Your task to perform on an android device: open a new tab in the chrome app Image 0: 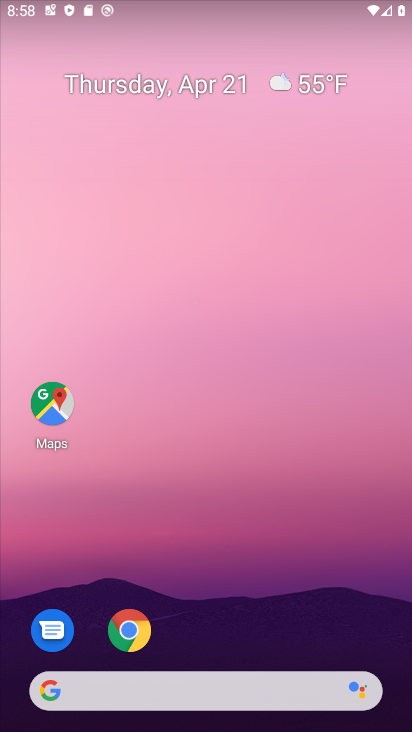
Step 0: click (136, 639)
Your task to perform on an android device: open a new tab in the chrome app Image 1: 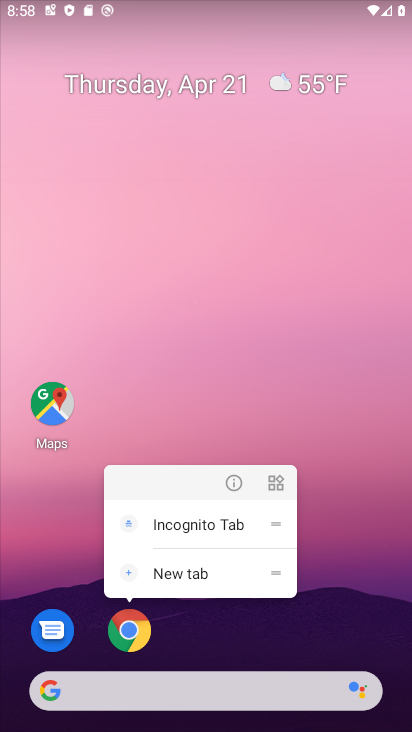
Step 1: click (127, 632)
Your task to perform on an android device: open a new tab in the chrome app Image 2: 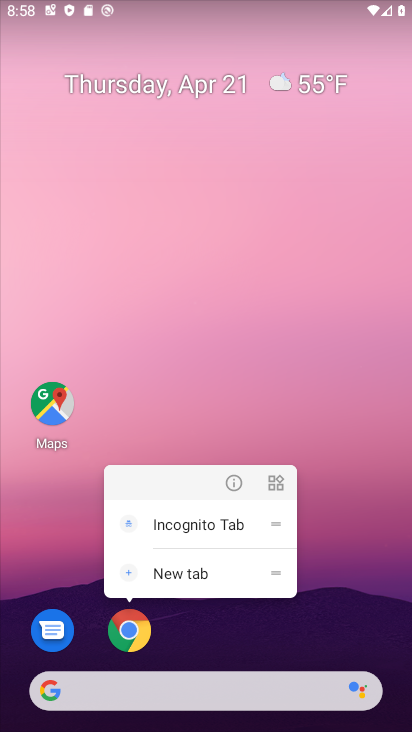
Step 2: click (145, 625)
Your task to perform on an android device: open a new tab in the chrome app Image 3: 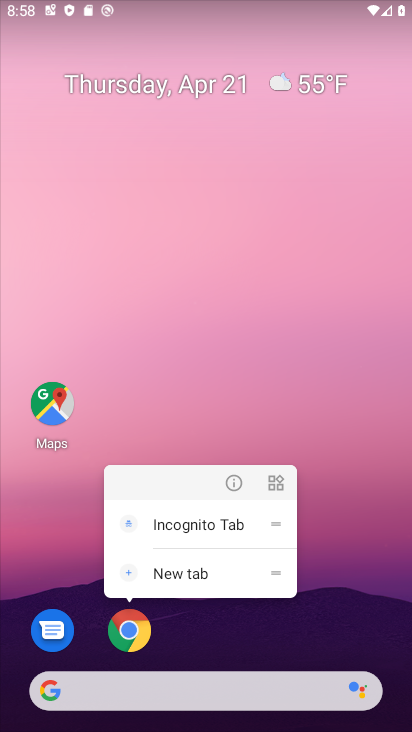
Step 3: click (146, 642)
Your task to perform on an android device: open a new tab in the chrome app Image 4: 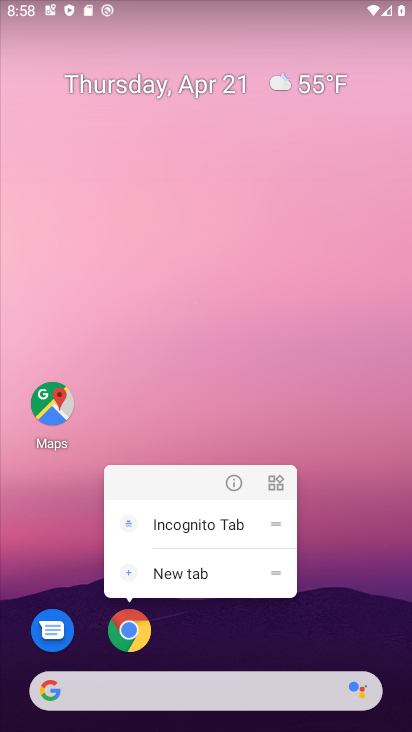
Step 4: click (142, 631)
Your task to perform on an android device: open a new tab in the chrome app Image 5: 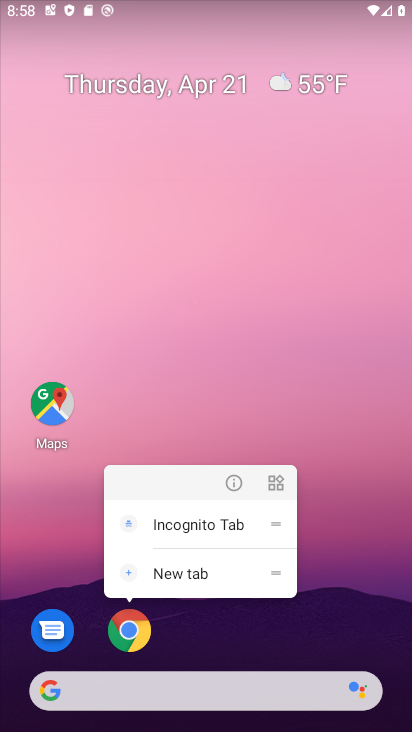
Step 5: click (134, 628)
Your task to perform on an android device: open a new tab in the chrome app Image 6: 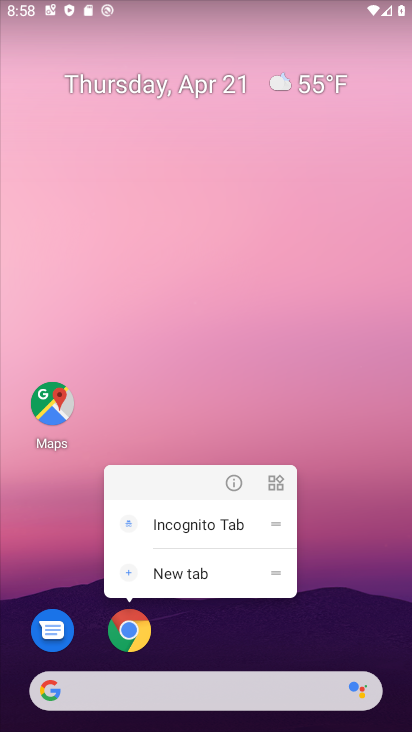
Step 6: click (112, 611)
Your task to perform on an android device: open a new tab in the chrome app Image 7: 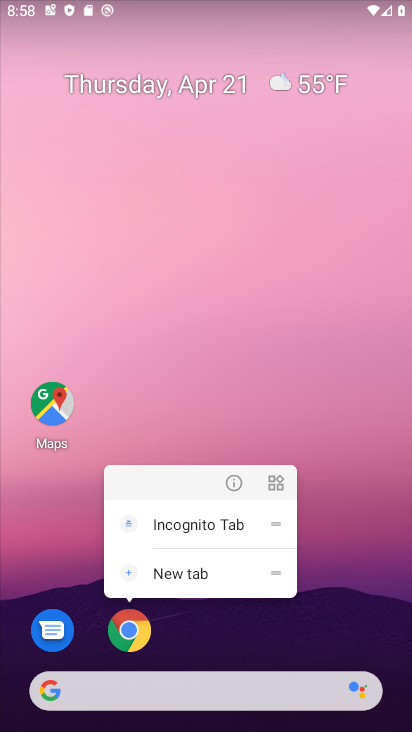
Step 7: click (136, 629)
Your task to perform on an android device: open a new tab in the chrome app Image 8: 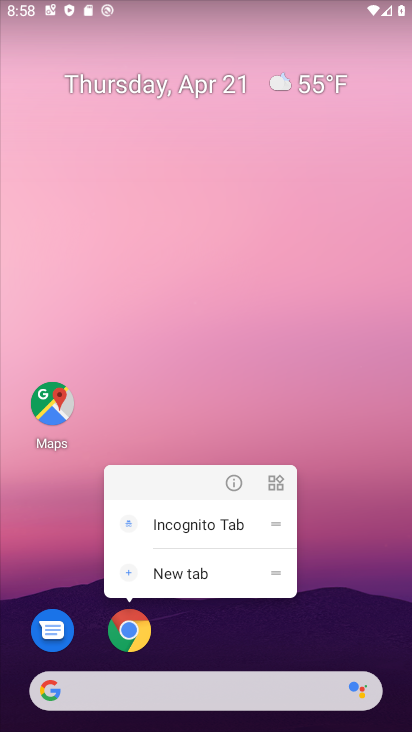
Step 8: click (154, 624)
Your task to perform on an android device: open a new tab in the chrome app Image 9: 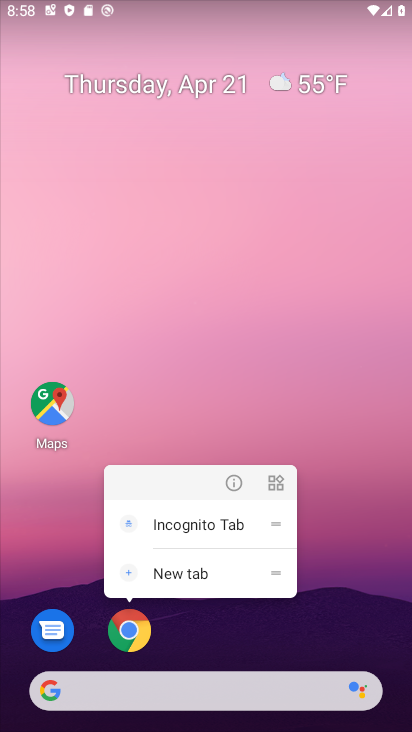
Step 9: drag from (287, 634) to (406, 65)
Your task to perform on an android device: open a new tab in the chrome app Image 10: 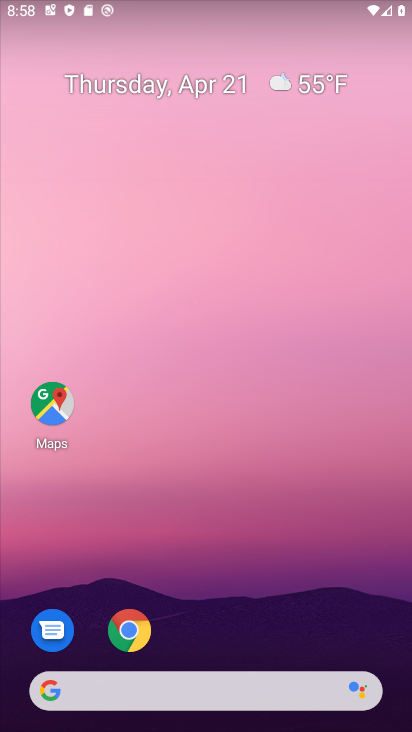
Step 10: drag from (234, 648) to (369, 27)
Your task to perform on an android device: open a new tab in the chrome app Image 11: 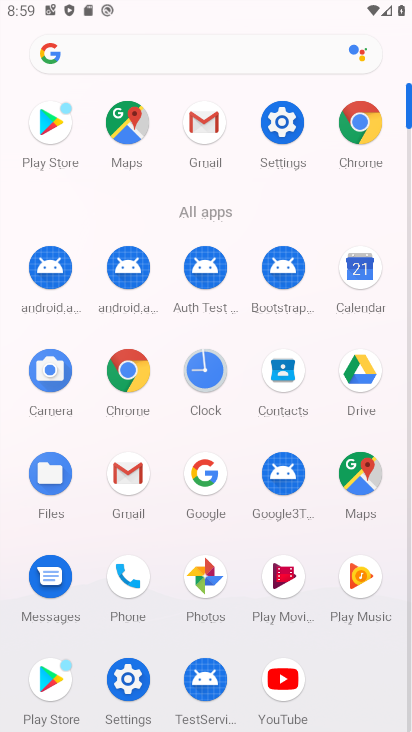
Step 11: click (126, 373)
Your task to perform on an android device: open a new tab in the chrome app Image 12: 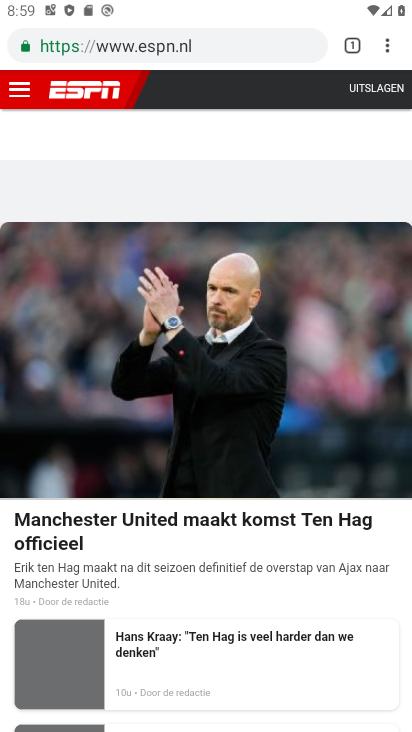
Step 12: click (391, 50)
Your task to perform on an android device: open a new tab in the chrome app Image 13: 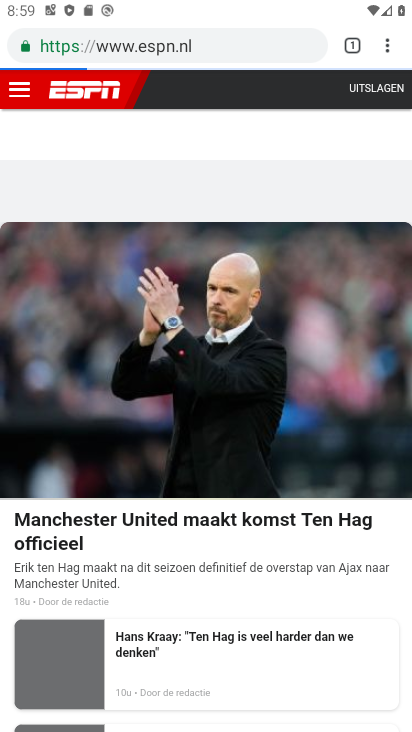
Step 13: task complete